Your task to perform on an android device: turn off airplane mode Image 0: 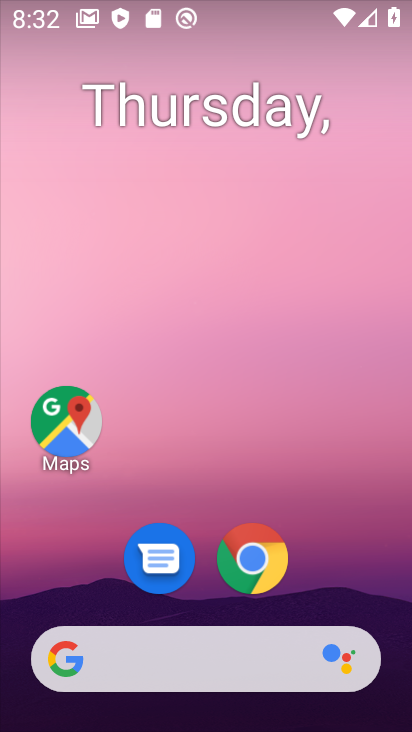
Step 0: drag from (390, 611) to (316, 151)
Your task to perform on an android device: turn off airplane mode Image 1: 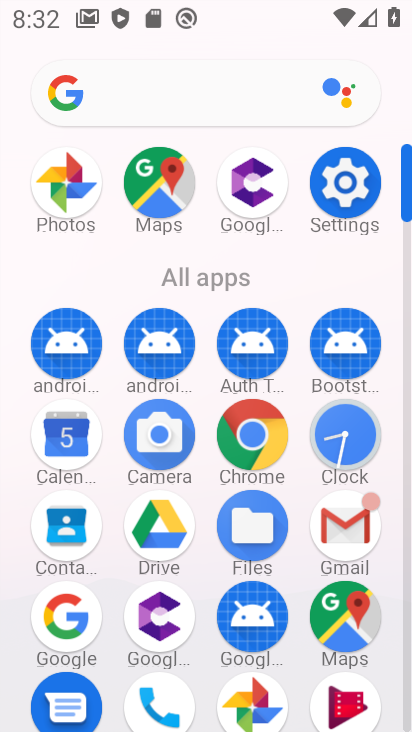
Step 1: click (407, 682)
Your task to perform on an android device: turn off airplane mode Image 2: 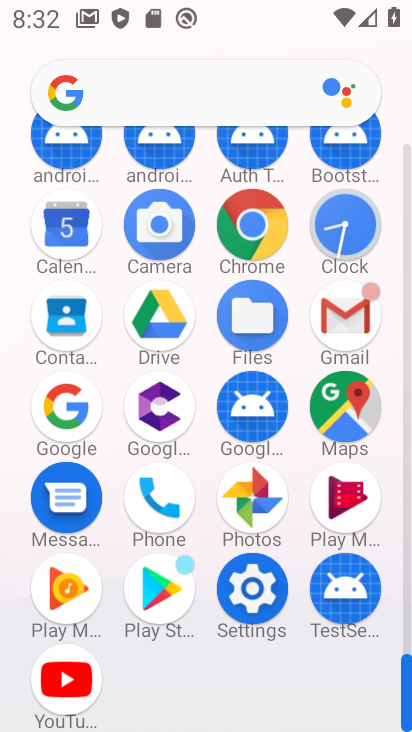
Step 2: click (249, 589)
Your task to perform on an android device: turn off airplane mode Image 3: 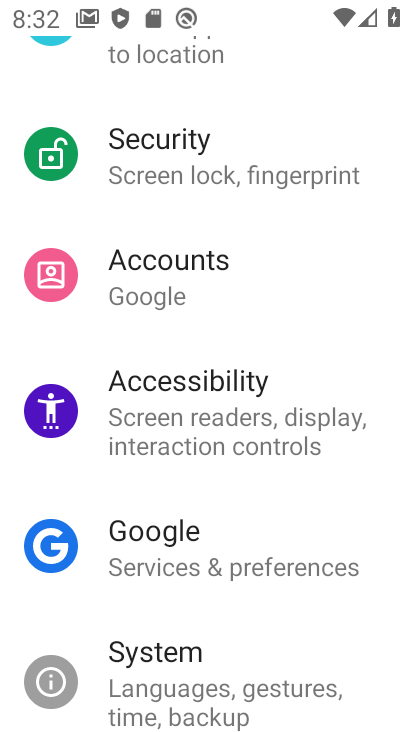
Step 3: drag from (364, 137) to (324, 406)
Your task to perform on an android device: turn off airplane mode Image 4: 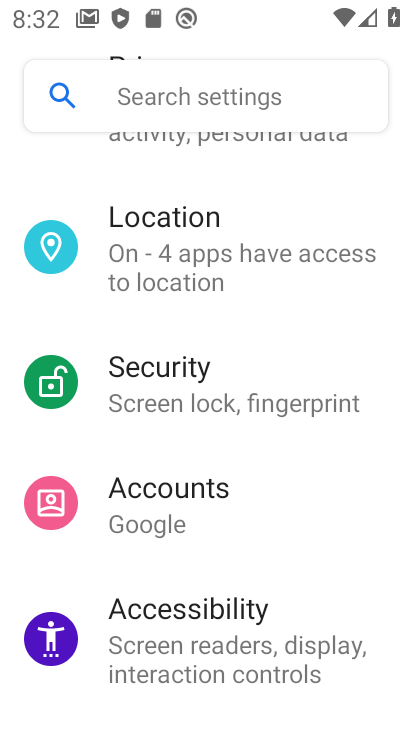
Step 4: drag from (357, 212) to (309, 500)
Your task to perform on an android device: turn off airplane mode Image 5: 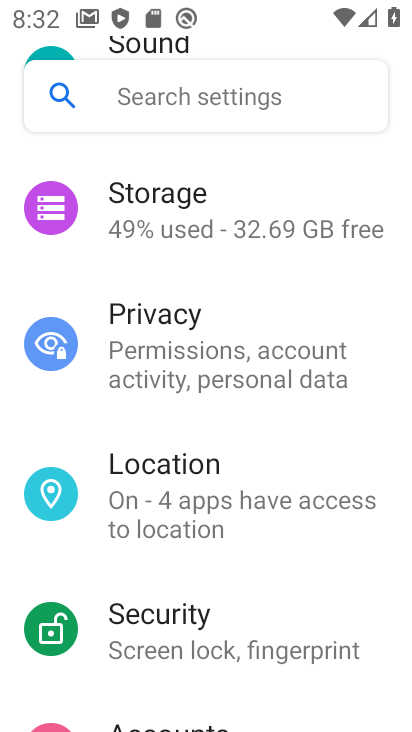
Step 5: drag from (362, 204) to (320, 521)
Your task to perform on an android device: turn off airplane mode Image 6: 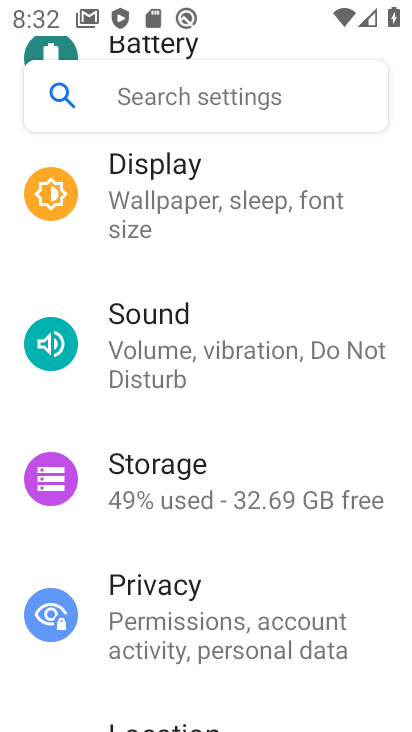
Step 6: drag from (371, 179) to (347, 450)
Your task to perform on an android device: turn off airplane mode Image 7: 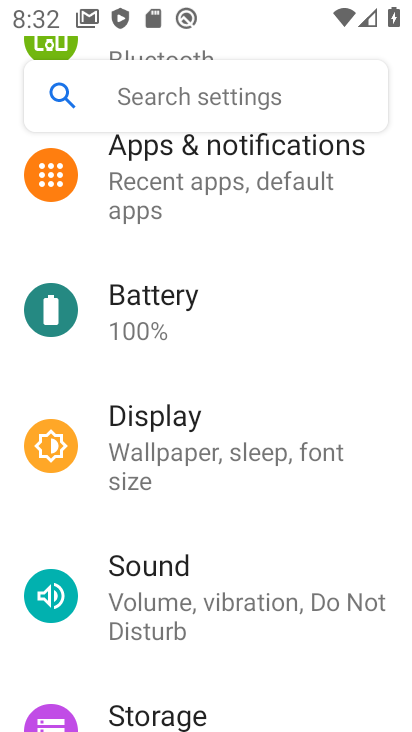
Step 7: drag from (350, 179) to (317, 513)
Your task to perform on an android device: turn off airplane mode Image 8: 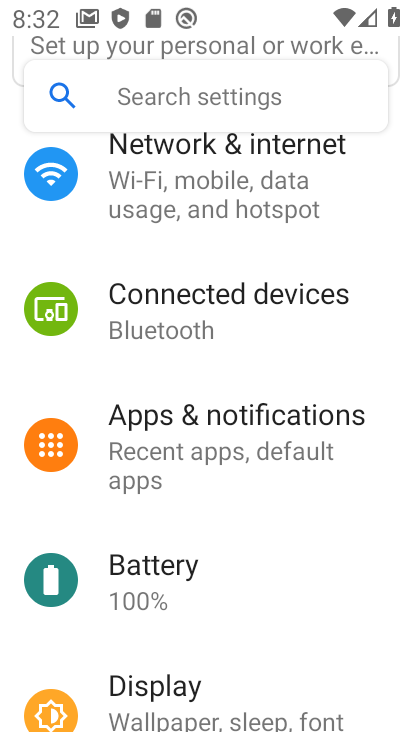
Step 8: click (133, 152)
Your task to perform on an android device: turn off airplane mode Image 9: 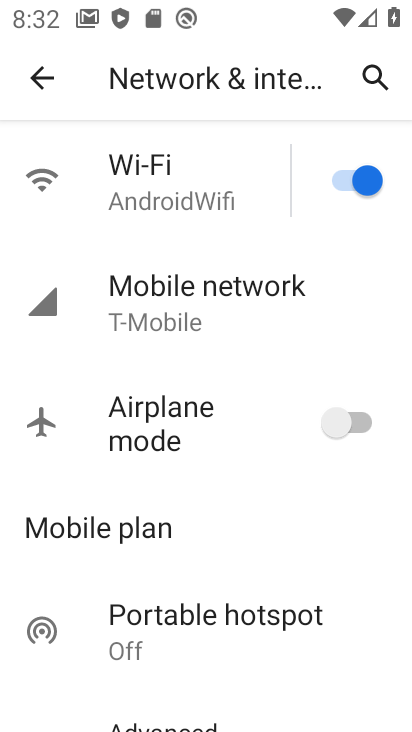
Step 9: task complete